Your task to perform on an android device: turn notification dots off Image 0: 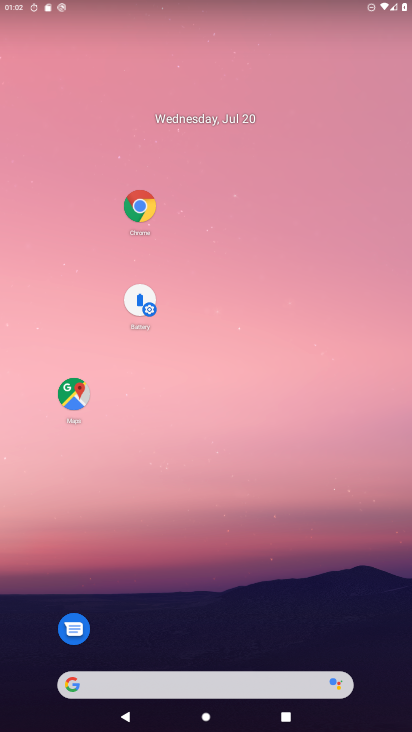
Step 0: drag from (173, 667) to (250, 341)
Your task to perform on an android device: turn notification dots off Image 1: 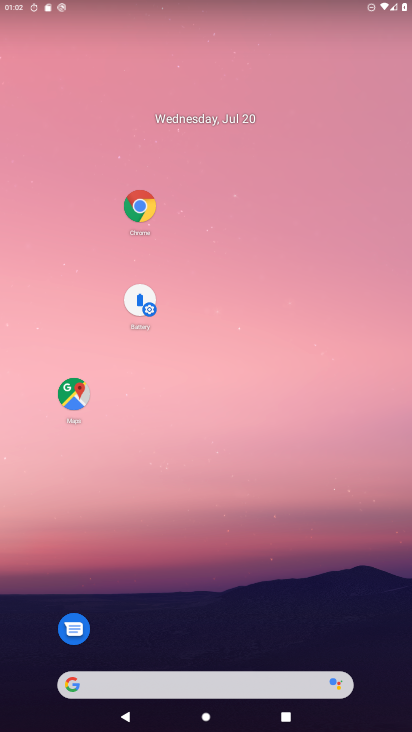
Step 1: drag from (217, 631) to (279, 68)
Your task to perform on an android device: turn notification dots off Image 2: 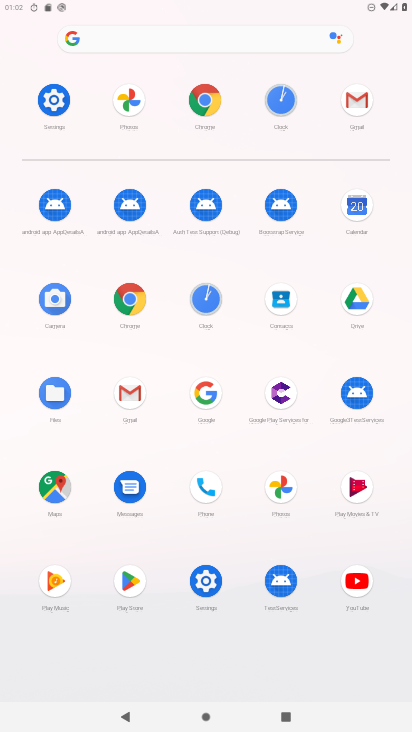
Step 2: click (44, 100)
Your task to perform on an android device: turn notification dots off Image 3: 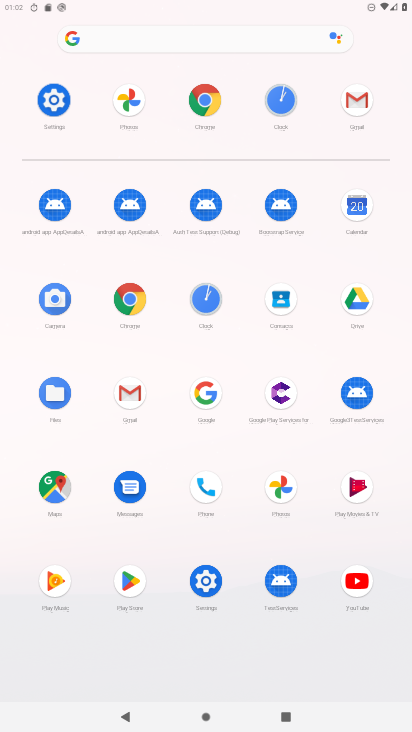
Step 3: click (45, 99)
Your task to perform on an android device: turn notification dots off Image 4: 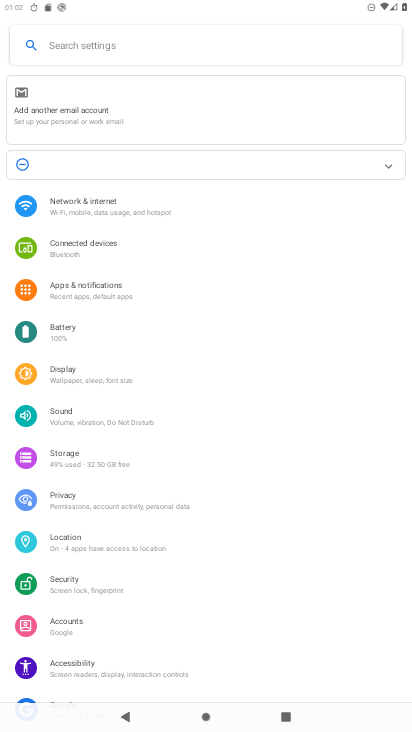
Step 4: click (59, 297)
Your task to perform on an android device: turn notification dots off Image 5: 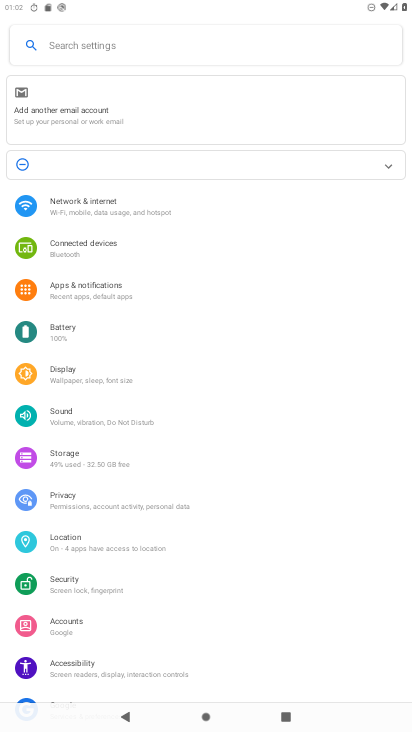
Step 5: click (59, 297)
Your task to perform on an android device: turn notification dots off Image 6: 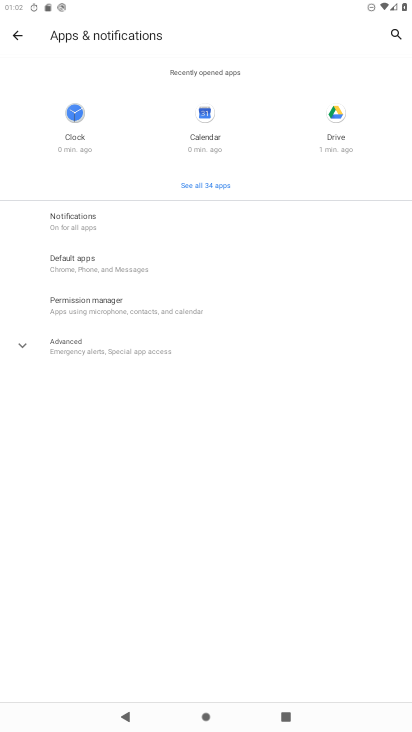
Step 6: click (82, 218)
Your task to perform on an android device: turn notification dots off Image 7: 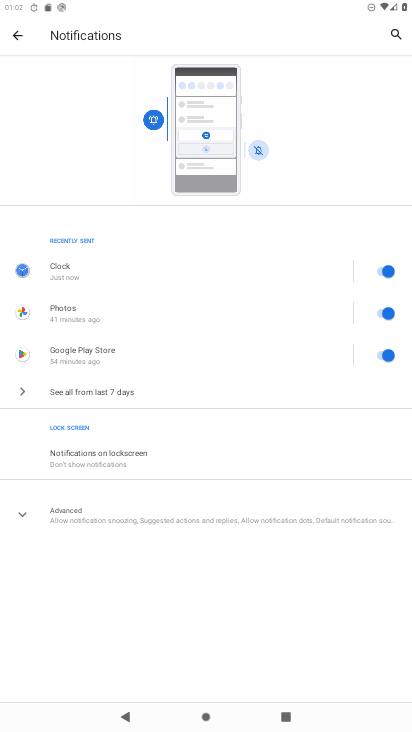
Step 7: click (76, 514)
Your task to perform on an android device: turn notification dots off Image 8: 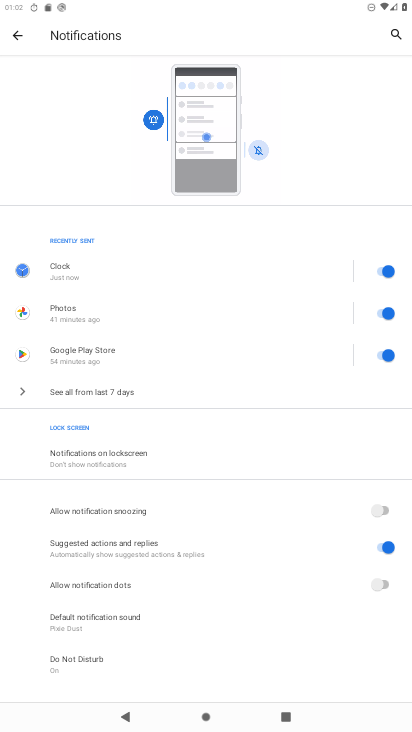
Step 8: task complete